Your task to perform on an android device: Search for a 1/2 in. x 1/2 in. x 24 in. 600 grit sander on Lowes.com Image 0: 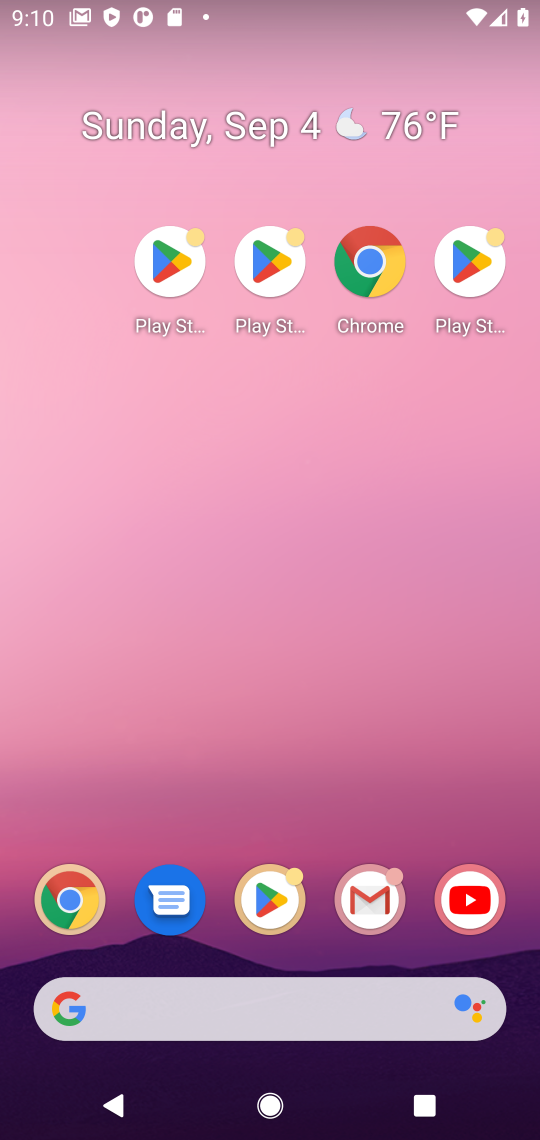
Step 0: drag from (290, 979) to (520, 19)
Your task to perform on an android device: Search for a 1/2 in. x 1/2 in. x 24 in. 600 grit sander on Lowes.com Image 1: 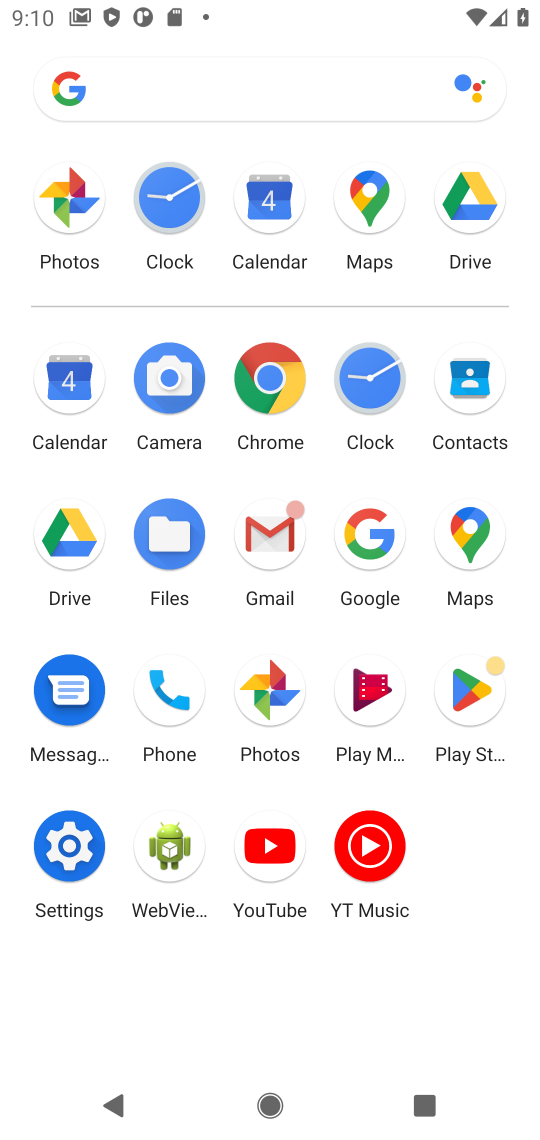
Step 1: click (268, 379)
Your task to perform on an android device: Search for a 1/2 in. x 1/2 in. x 24 in. 600 grit sander on Lowes.com Image 2: 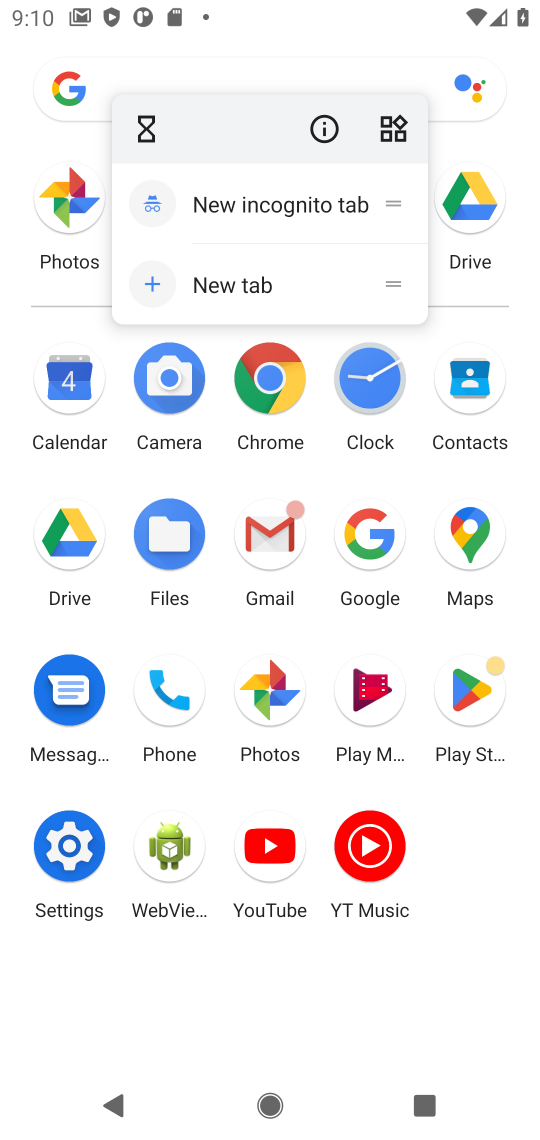
Step 2: click (286, 414)
Your task to perform on an android device: Search for a 1/2 in. x 1/2 in. x 24 in. 600 grit sander on Lowes.com Image 3: 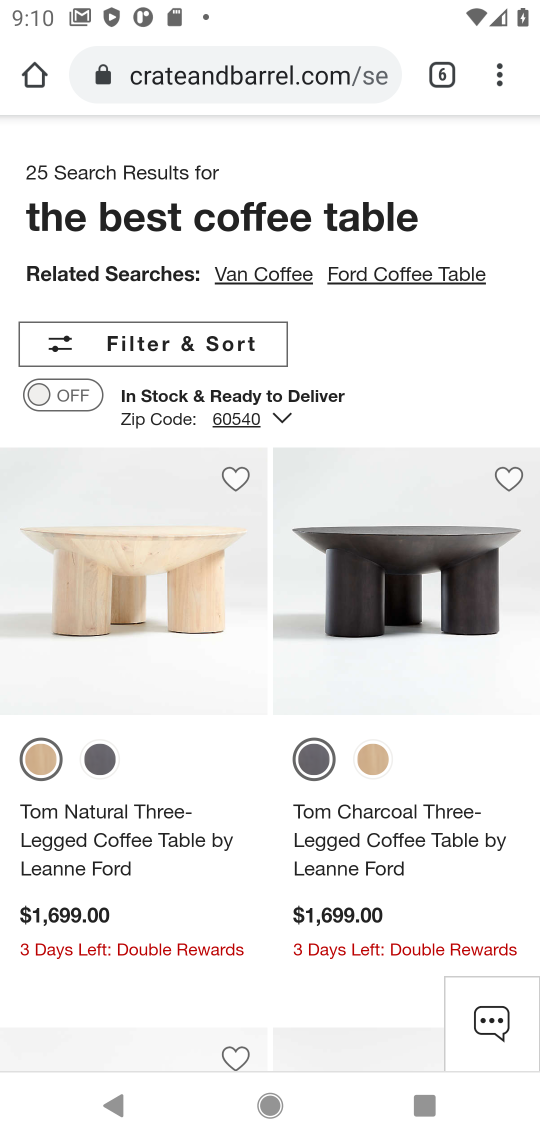
Step 3: click (457, 65)
Your task to perform on an android device: Search for a 1/2 in. x 1/2 in. x 24 in. 600 grit sander on Lowes.com Image 4: 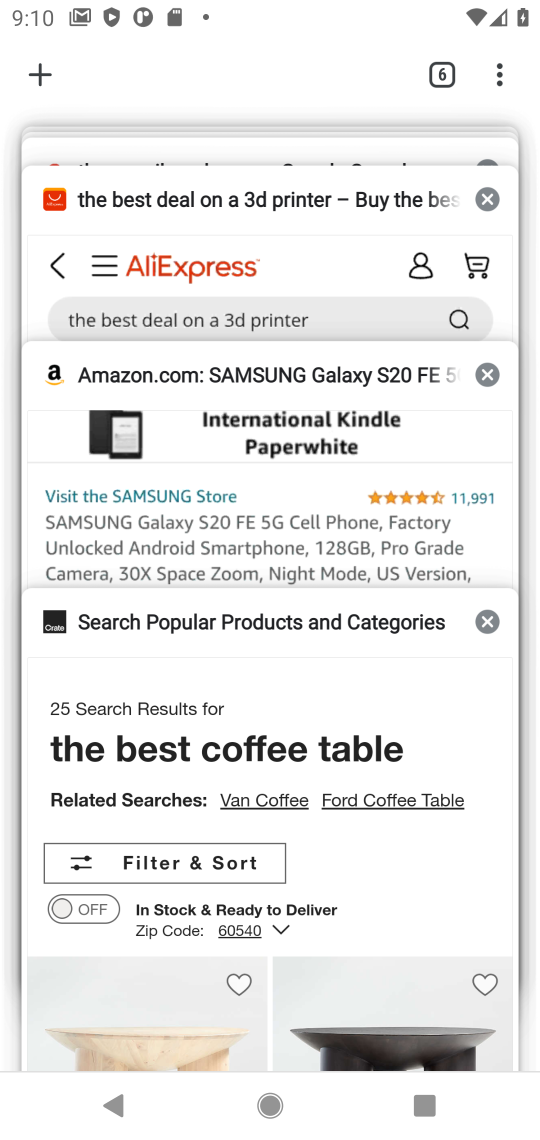
Step 4: click (21, 70)
Your task to perform on an android device: Search for a 1/2 in. x 1/2 in. x 24 in. 600 grit sander on Lowes.com Image 5: 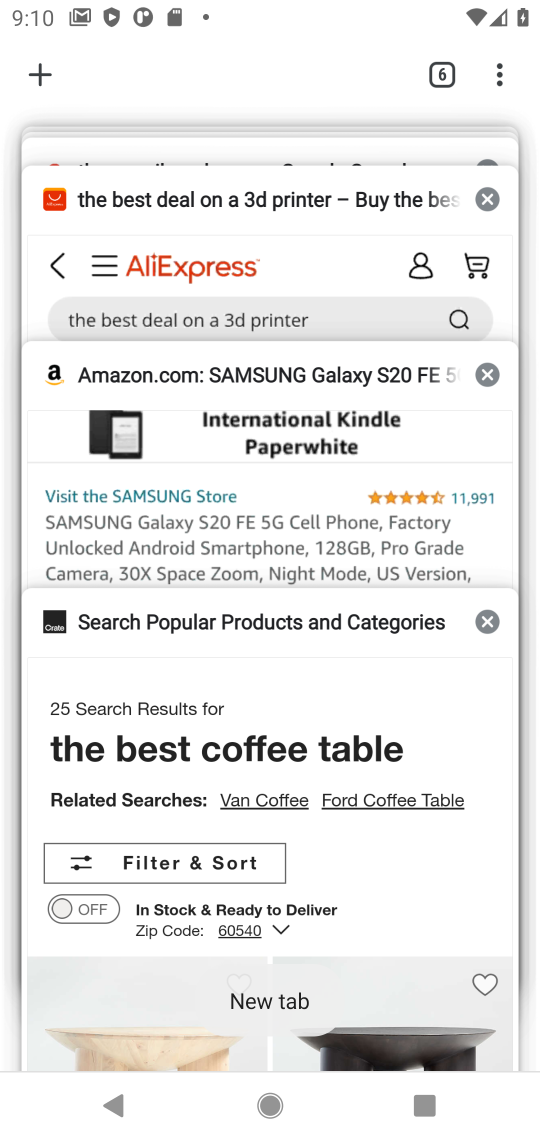
Step 5: click (27, 86)
Your task to perform on an android device: Search for a 1/2 in. x 1/2 in. x 24 in. 600 grit sander on Lowes.com Image 6: 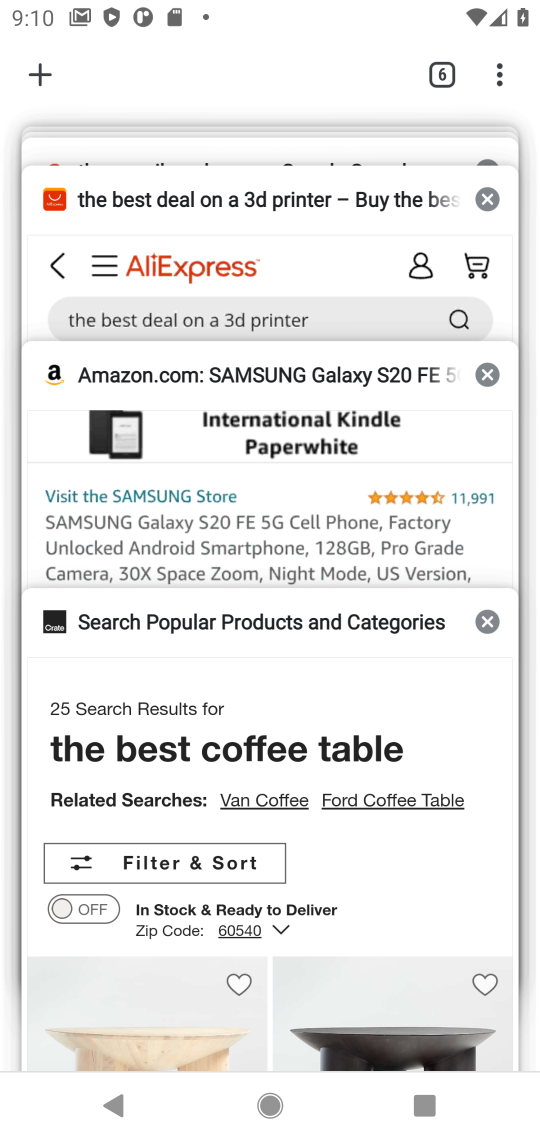
Step 6: click (24, 64)
Your task to perform on an android device: Search for a 1/2 in. x 1/2 in. x 24 in. 600 grit sander on Lowes.com Image 7: 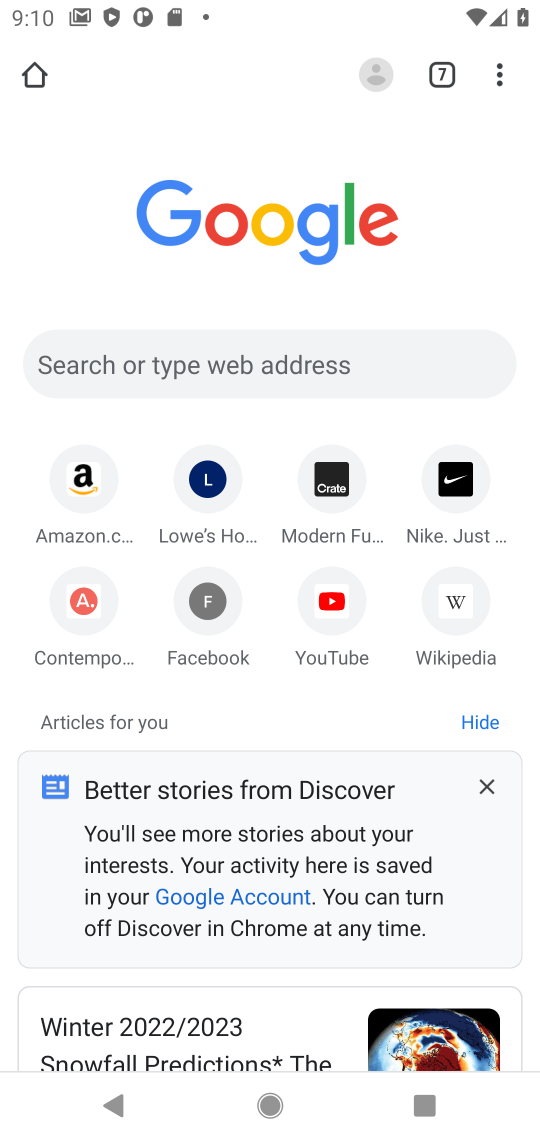
Step 7: click (215, 505)
Your task to perform on an android device: Search for a 1/2 in. x 1/2 in. x 24 in. 600 grit sander on Lowes.com Image 8: 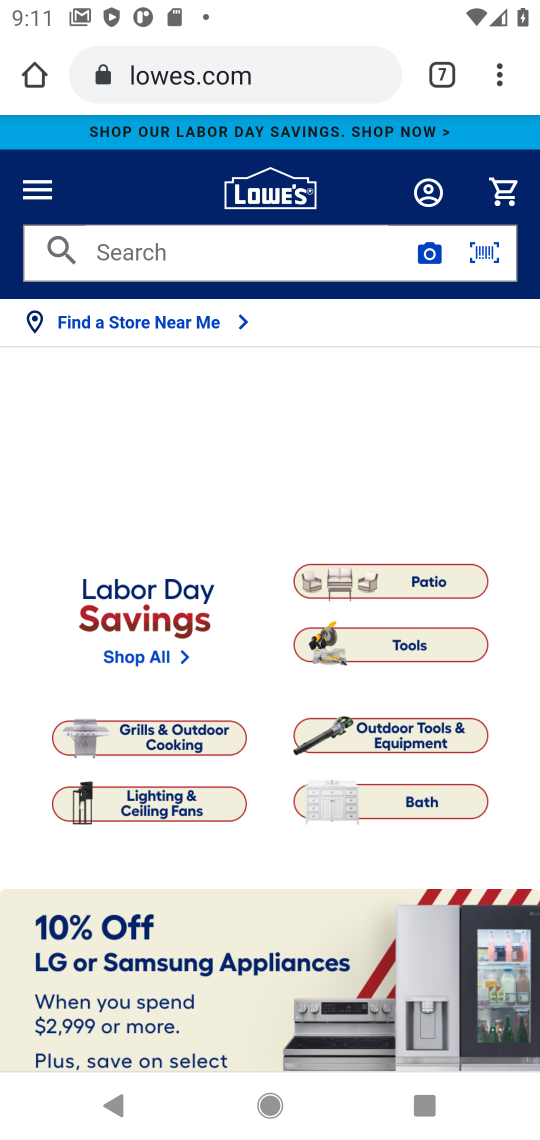
Step 8: click (286, 243)
Your task to perform on an android device: Search for a 1/2 in. x 1/2 in. x 24 in. 600 grit sander on Lowes.com Image 9: 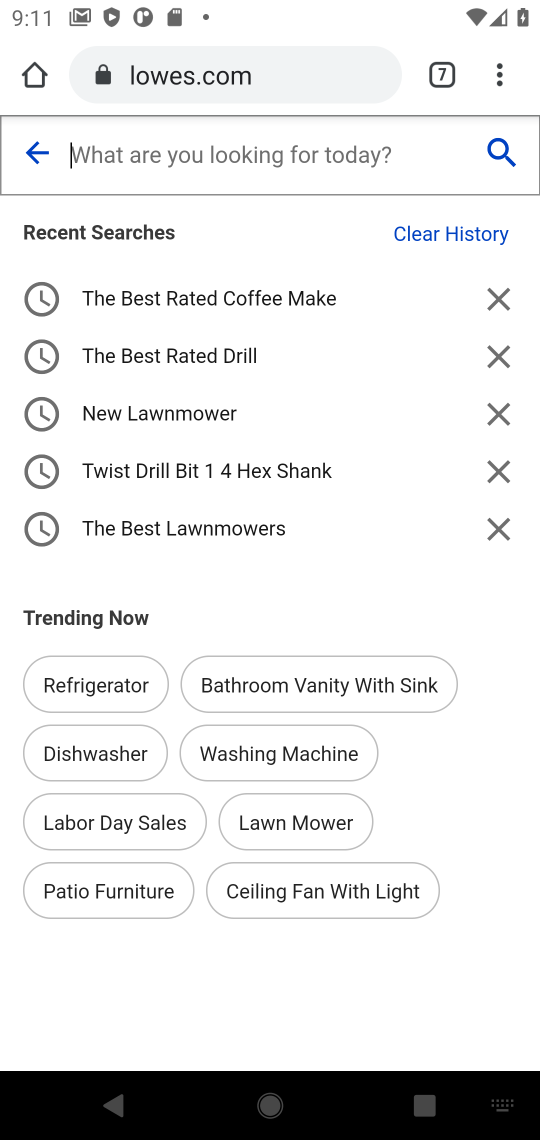
Step 9: type "1/2 in. x 1/2 in. x 24 in. 600 grit sander"
Your task to perform on an android device: Search for a 1/2 in. x 1/2 in. x 24 in. 600 grit sander on Lowes.com Image 10: 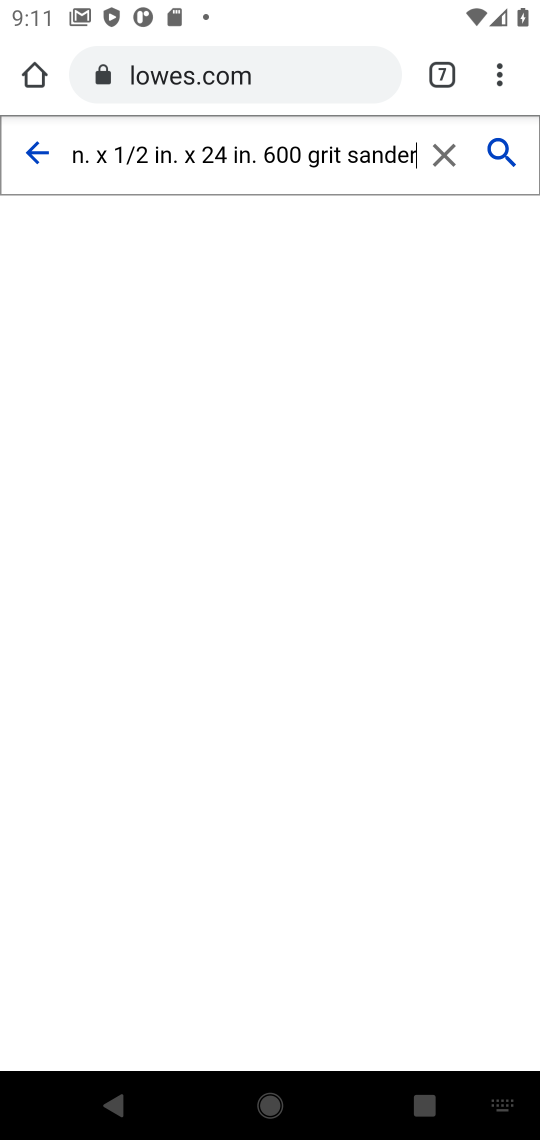
Step 10: click (483, 158)
Your task to perform on an android device: Search for a 1/2 in. x 1/2 in. x 24 in. 600 grit sander on Lowes.com Image 11: 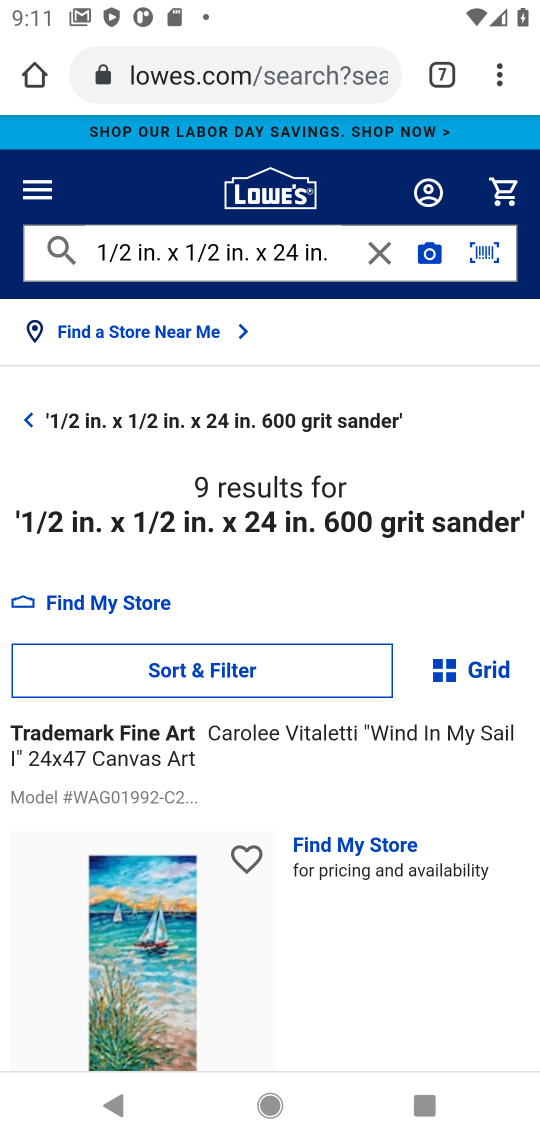
Step 11: task complete